Your task to perform on an android device: What's the weather like in Singapore? Image 0: 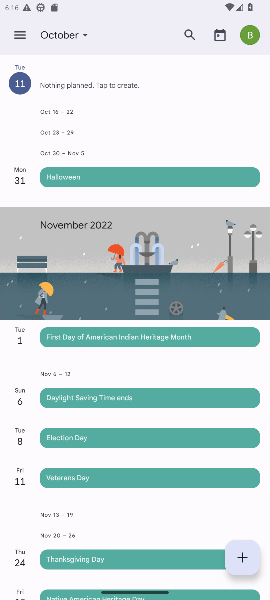
Step 0: press back button
Your task to perform on an android device: What's the weather like in Singapore? Image 1: 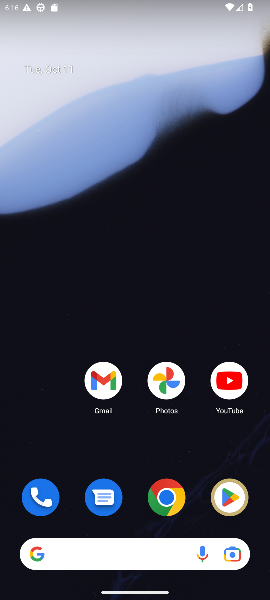
Step 1: type "the weather like in Singapore?"
Your task to perform on an android device: What's the weather like in Singapore? Image 2: 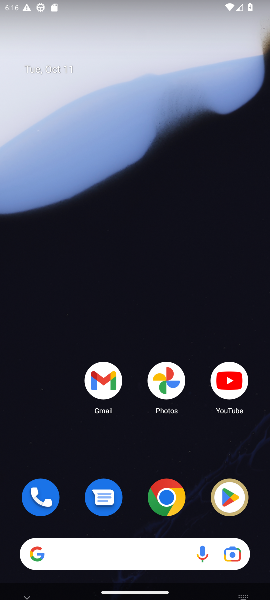
Step 2: type ""
Your task to perform on an android device: What's the weather like in Singapore? Image 3: 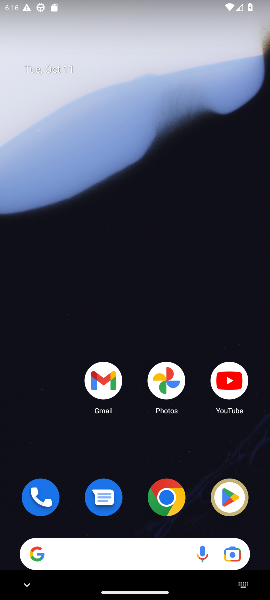
Step 3: click (110, 552)
Your task to perform on an android device: What's the weather like in Singapore? Image 4: 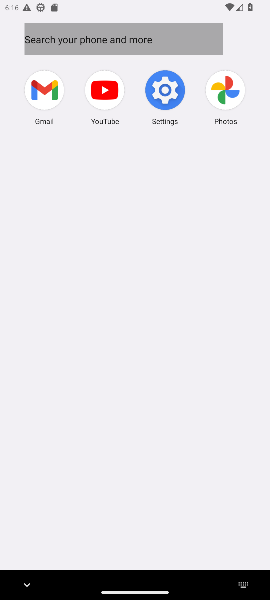
Step 4: click (162, 45)
Your task to perform on an android device: What's the weather like in Singapore? Image 5: 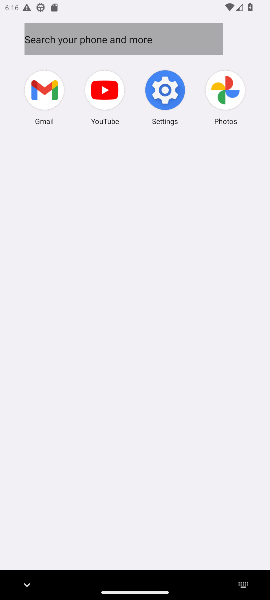
Step 5: type "the weather like in Singapore?"
Your task to perform on an android device: What's the weather like in Singapore? Image 6: 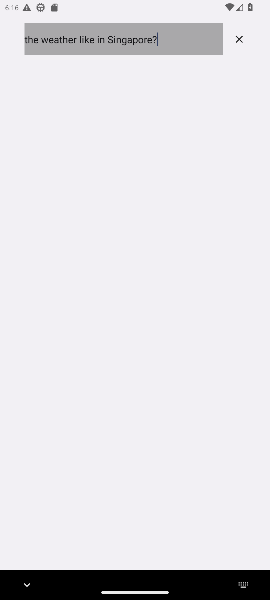
Step 6: press enter
Your task to perform on an android device: What's the weather like in Singapore? Image 7: 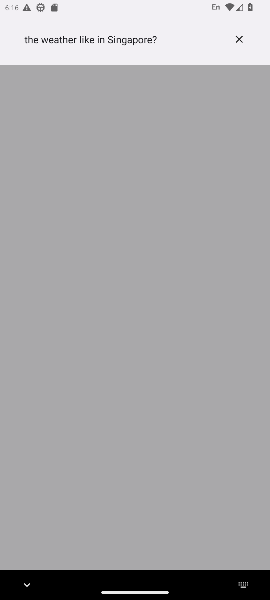
Step 7: click (246, 594)
Your task to perform on an android device: What's the weather like in Singapore? Image 8: 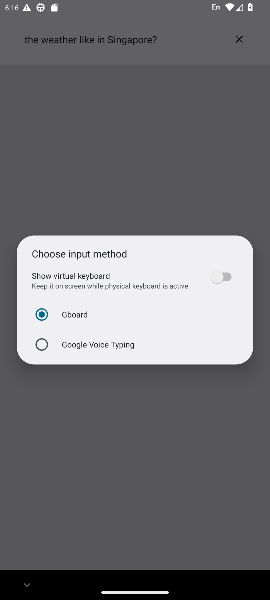
Step 8: click (114, 320)
Your task to perform on an android device: What's the weather like in Singapore? Image 9: 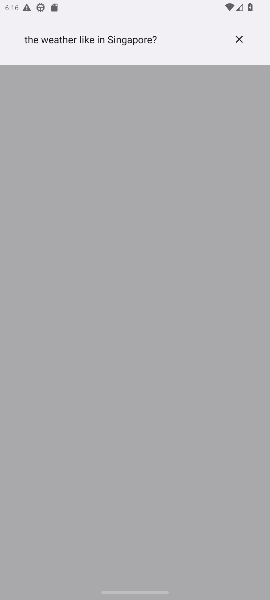
Step 9: click (114, 320)
Your task to perform on an android device: What's the weather like in Singapore? Image 10: 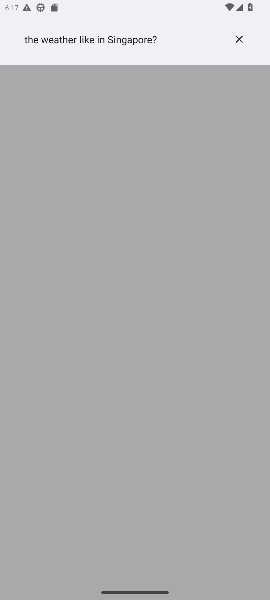
Step 10: click (190, 39)
Your task to perform on an android device: What's the weather like in Singapore? Image 11: 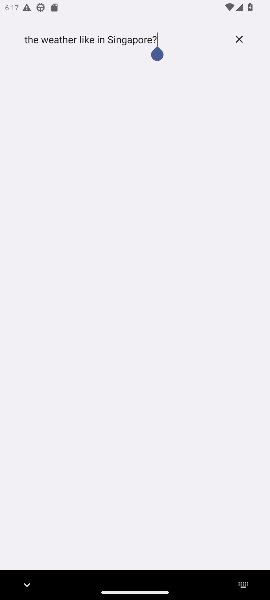
Step 11: press enter
Your task to perform on an android device: What's the weather like in Singapore? Image 12: 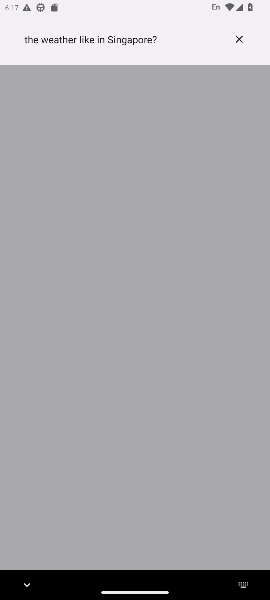
Step 12: click (28, 589)
Your task to perform on an android device: What's the weather like in Singapore? Image 13: 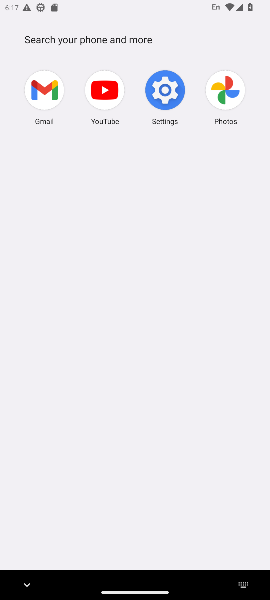
Step 13: click (246, 591)
Your task to perform on an android device: What's the weather like in Singapore? Image 14: 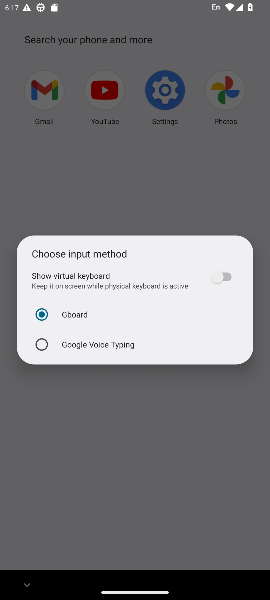
Step 14: click (118, 326)
Your task to perform on an android device: What's the weather like in Singapore? Image 15: 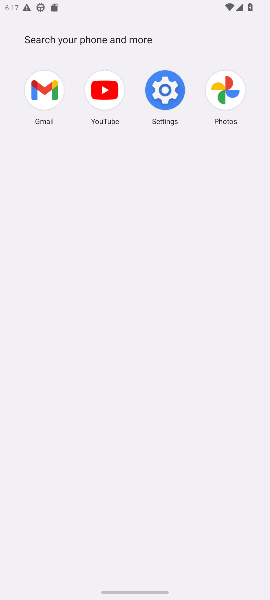
Step 15: click (86, 312)
Your task to perform on an android device: What's the weather like in Singapore? Image 16: 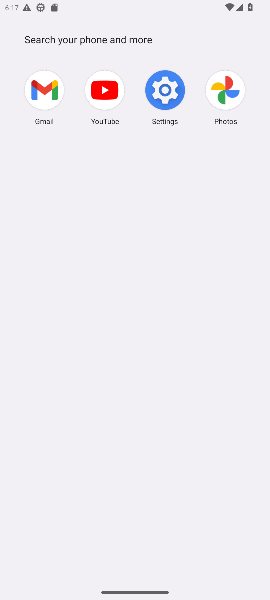
Step 16: click (118, 42)
Your task to perform on an android device: What's the weather like in Singapore? Image 17: 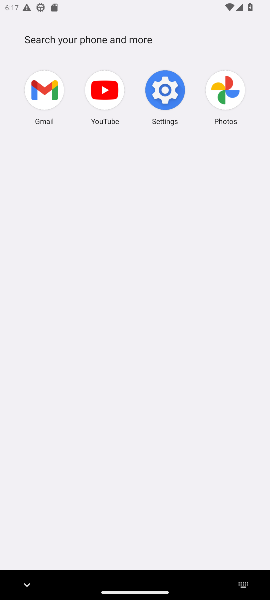
Step 17: click (131, 590)
Your task to perform on an android device: What's the weather like in Singapore? Image 18: 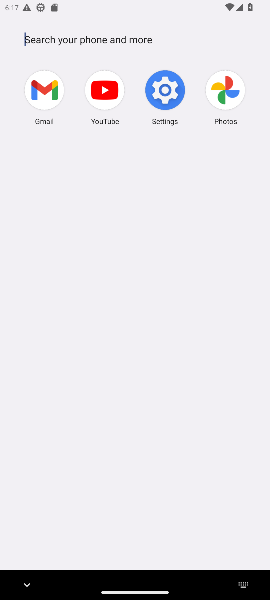
Step 18: drag from (143, 506) to (161, 358)
Your task to perform on an android device: What's the weather like in Singapore? Image 19: 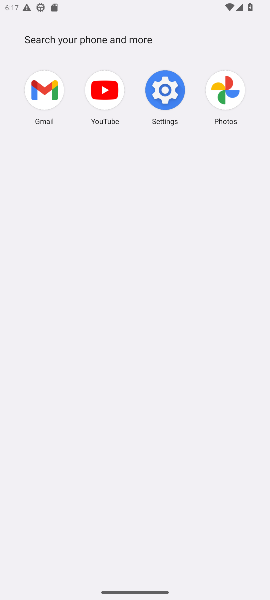
Step 19: click (152, 591)
Your task to perform on an android device: What's the weather like in Singapore? Image 20: 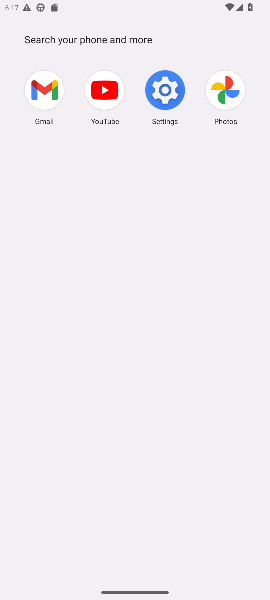
Step 20: click (152, 590)
Your task to perform on an android device: What's the weather like in Singapore? Image 21: 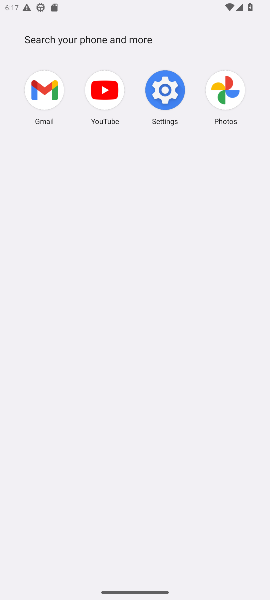
Step 21: click (195, 586)
Your task to perform on an android device: What's the weather like in Singapore? Image 22: 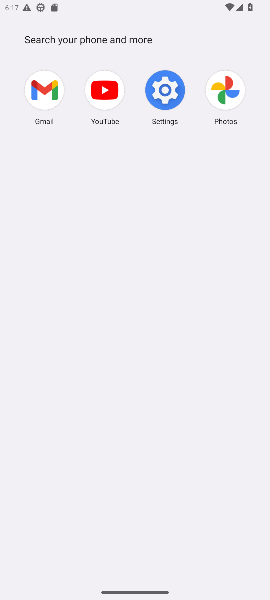
Step 22: click (61, 587)
Your task to perform on an android device: What's the weather like in Singapore? Image 23: 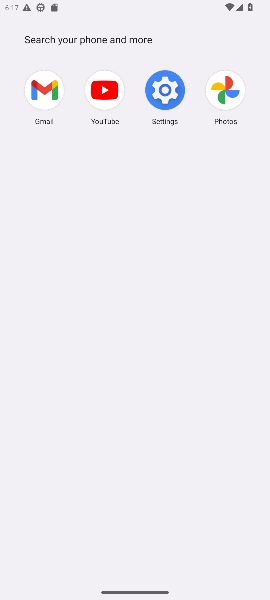
Step 23: task complete